Your task to perform on an android device: toggle javascript in the chrome app Image 0: 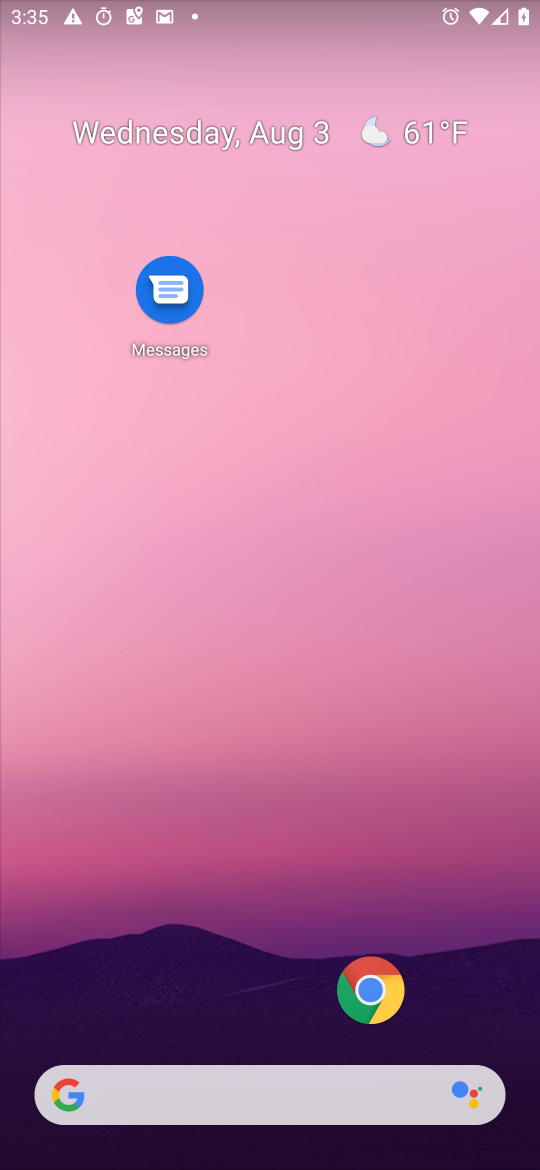
Step 0: click (370, 996)
Your task to perform on an android device: toggle javascript in the chrome app Image 1: 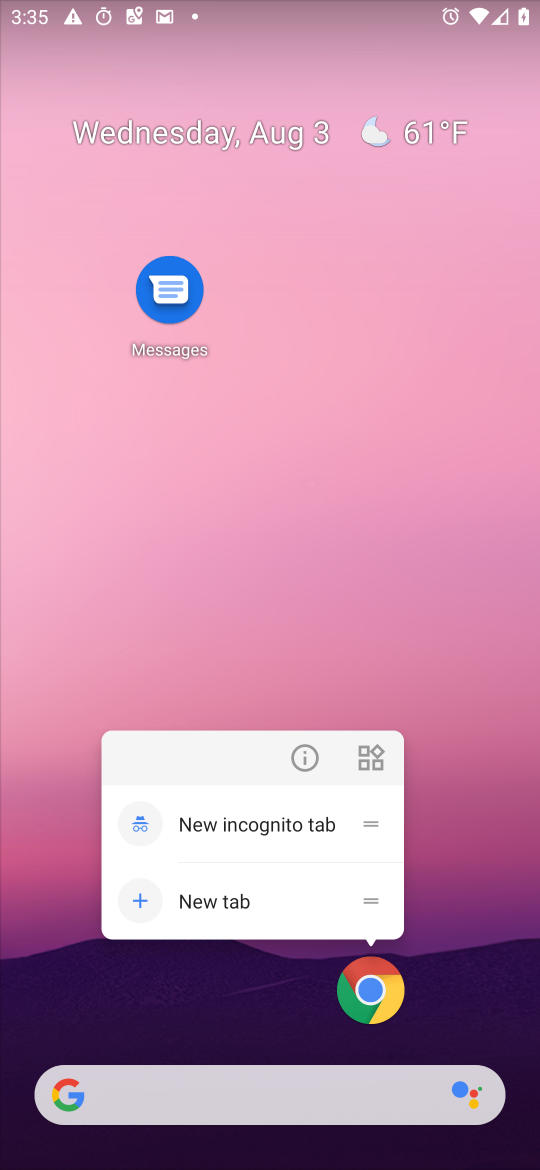
Step 1: click (367, 984)
Your task to perform on an android device: toggle javascript in the chrome app Image 2: 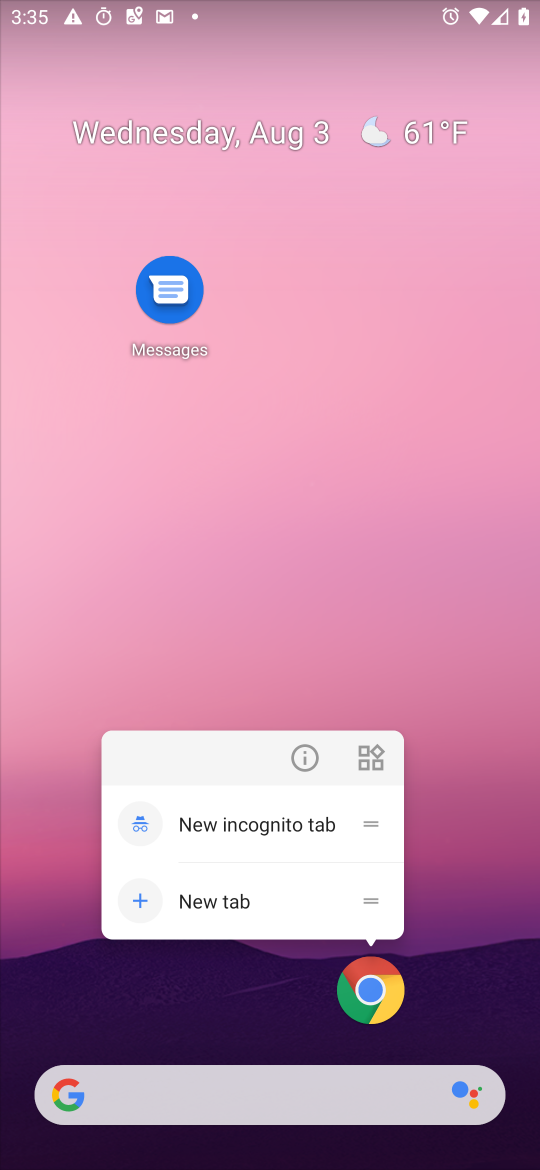
Step 2: click (375, 992)
Your task to perform on an android device: toggle javascript in the chrome app Image 3: 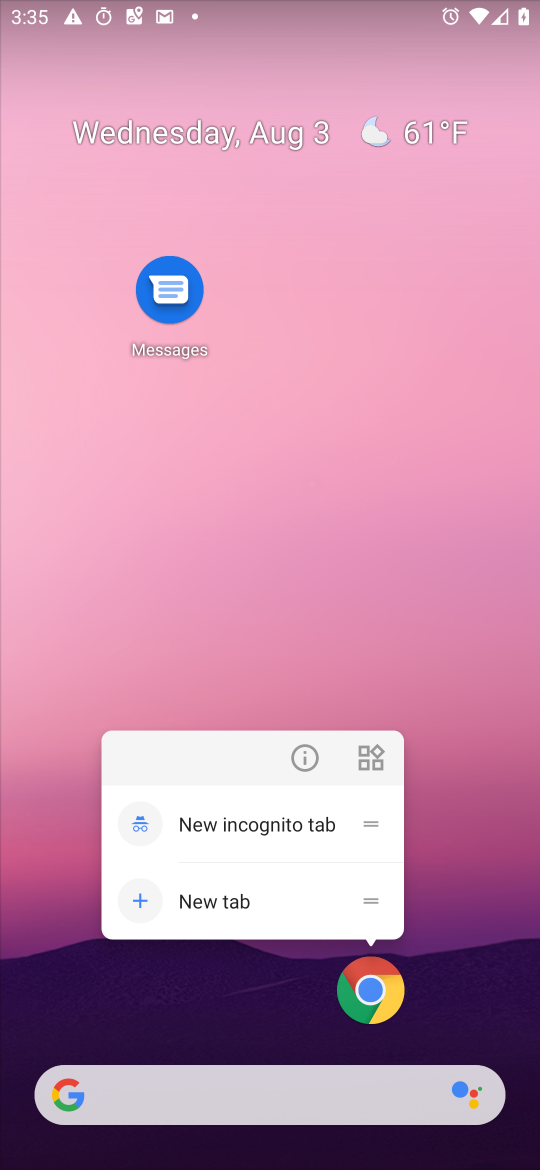
Step 3: click (382, 1003)
Your task to perform on an android device: toggle javascript in the chrome app Image 4: 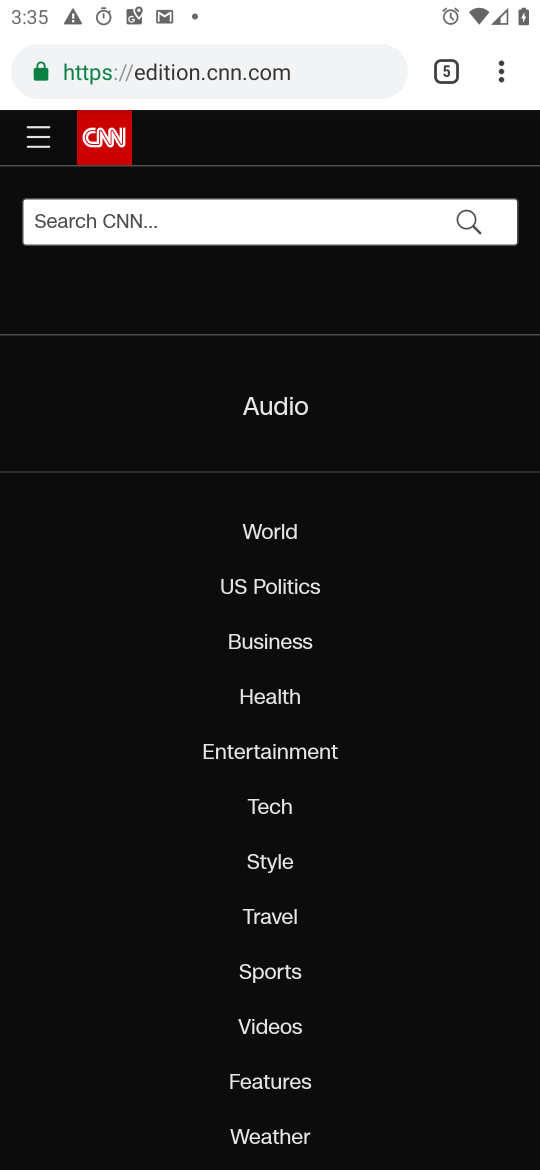
Step 4: click (506, 67)
Your task to perform on an android device: toggle javascript in the chrome app Image 5: 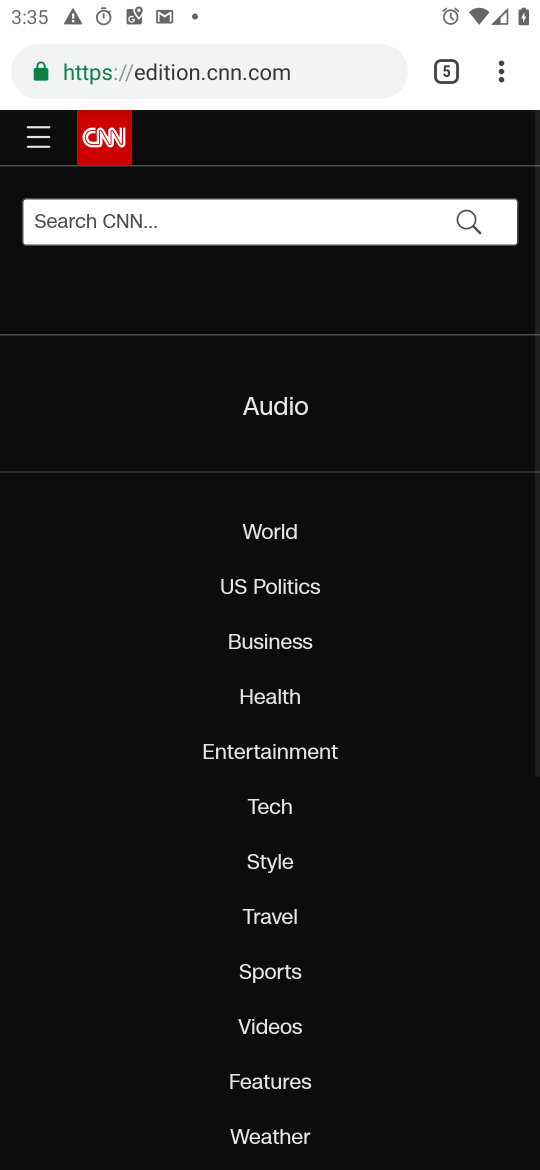
Step 5: click (501, 62)
Your task to perform on an android device: toggle javascript in the chrome app Image 6: 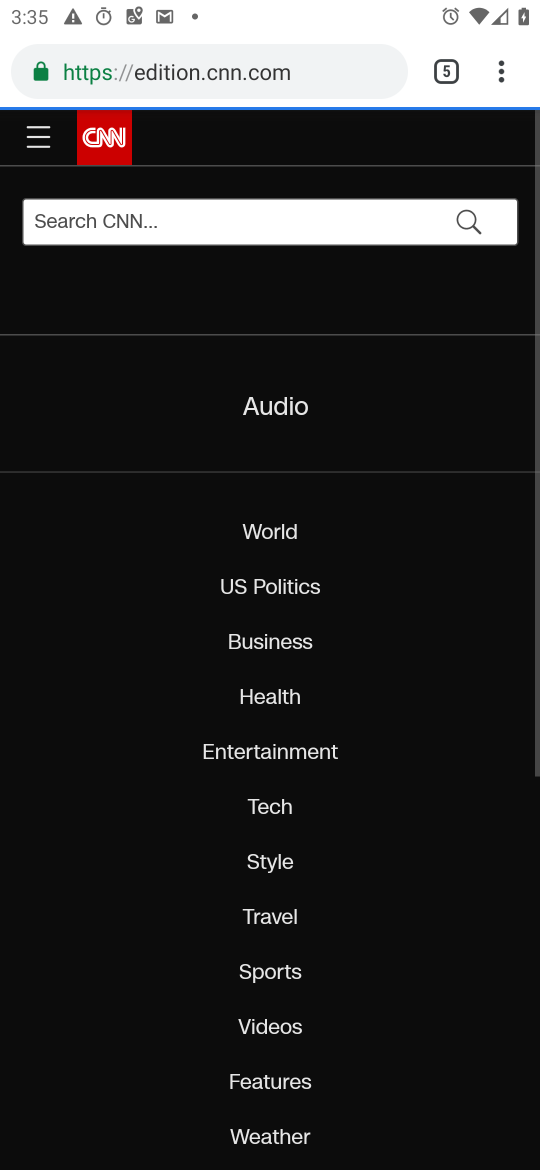
Step 6: click (493, 79)
Your task to perform on an android device: toggle javascript in the chrome app Image 7: 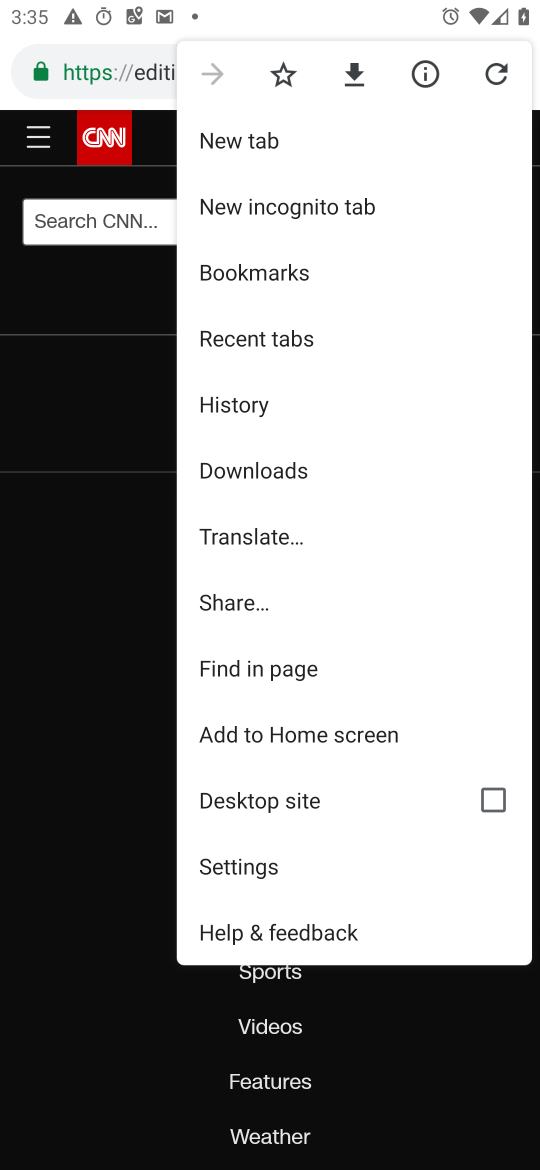
Step 7: click (257, 862)
Your task to perform on an android device: toggle javascript in the chrome app Image 8: 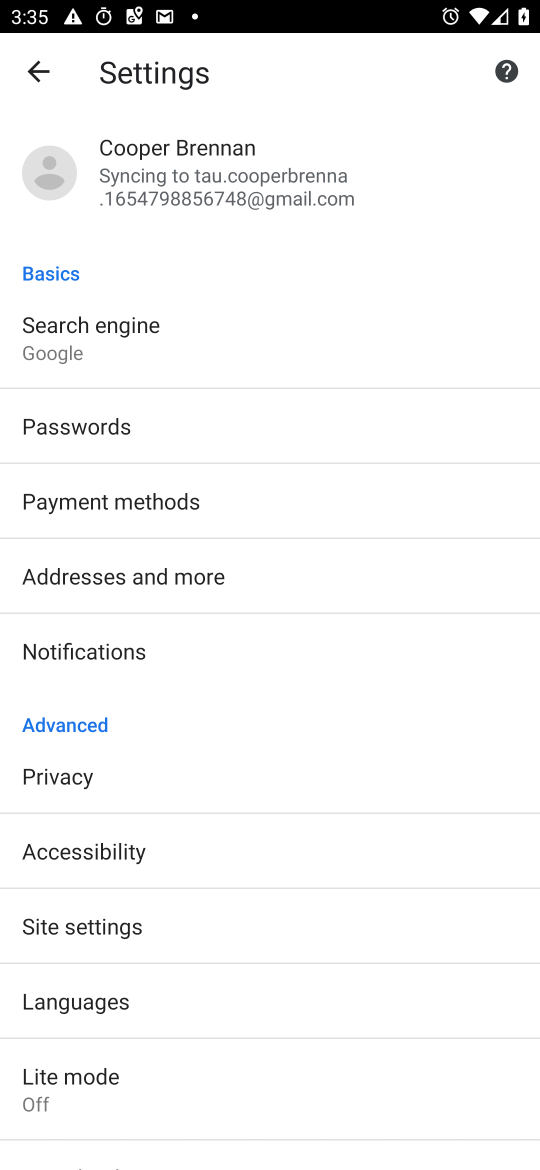
Step 8: drag from (87, 1079) to (108, 537)
Your task to perform on an android device: toggle javascript in the chrome app Image 9: 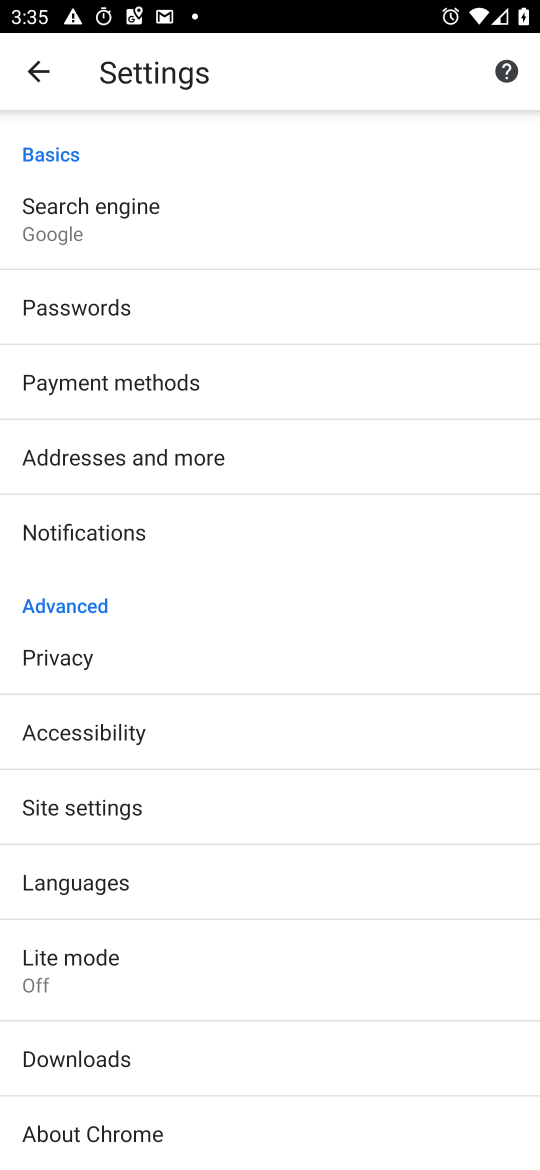
Step 9: click (102, 804)
Your task to perform on an android device: toggle javascript in the chrome app Image 10: 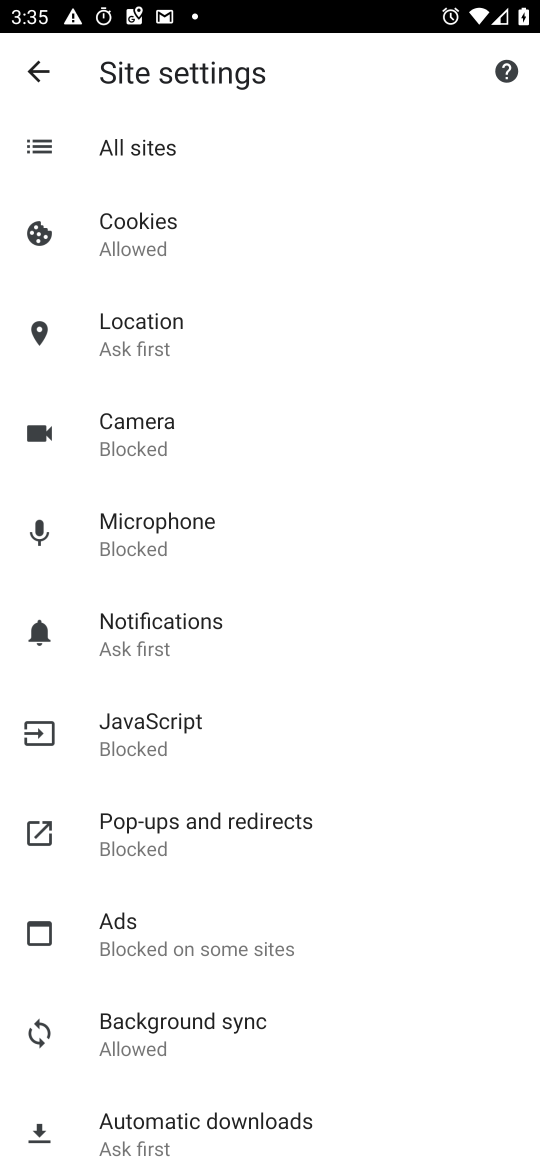
Step 10: drag from (178, 1129) to (178, 599)
Your task to perform on an android device: toggle javascript in the chrome app Image 11: 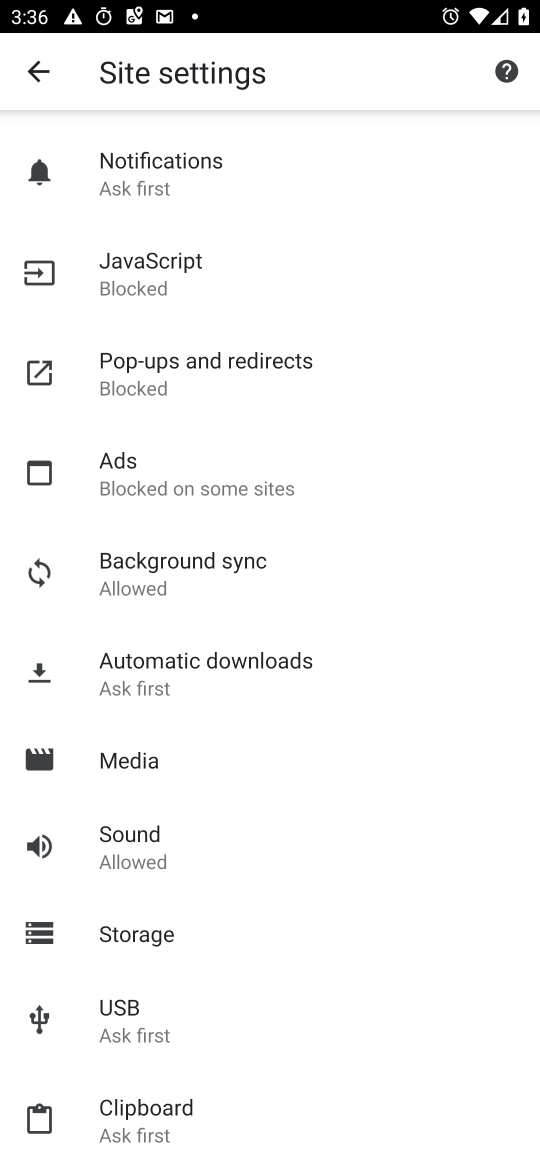
Step 11: click (146, 289)
Your task to perform on an android device: toggle javascript in the chrome app Image 12: 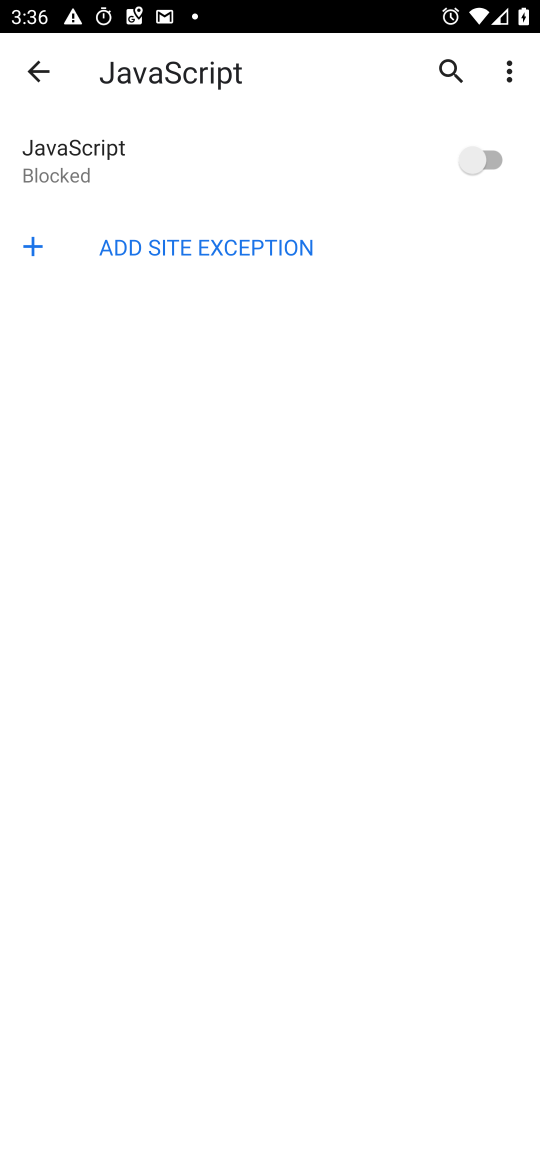
Step 12: click (487, 152)
Your task to perform on an android device: toggle javascript in the chrome app Image 13: 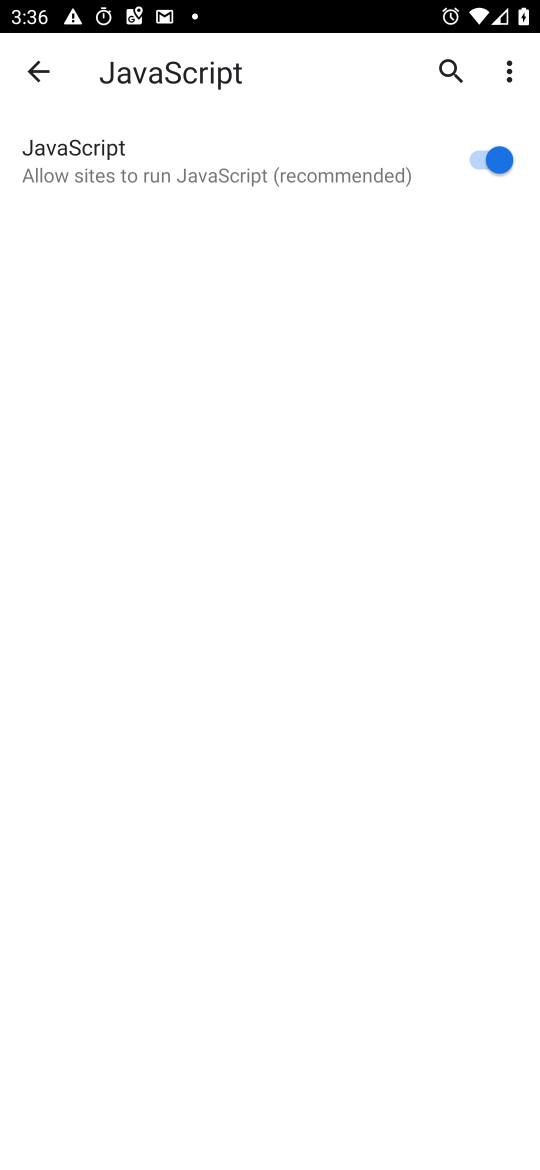
Step 13: task complete